Your task to perform on an android device: stop showing notifications on the lock screen Image 0: 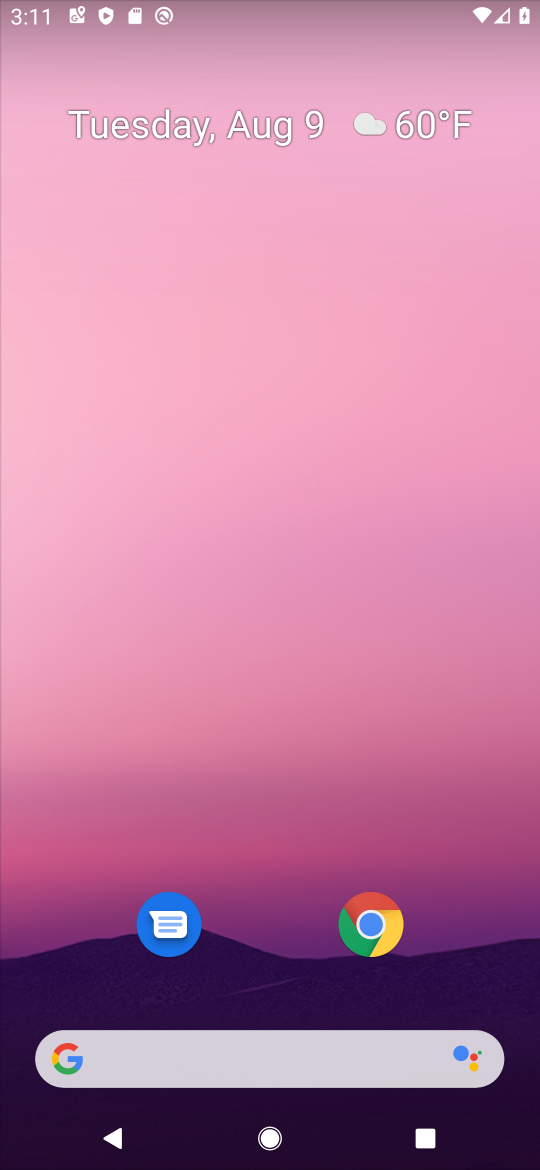
Step 0: drag from (261, 902) to (414, 0)
Your task to perform on an android device: stop showing notifications on the lock screen Image 1: 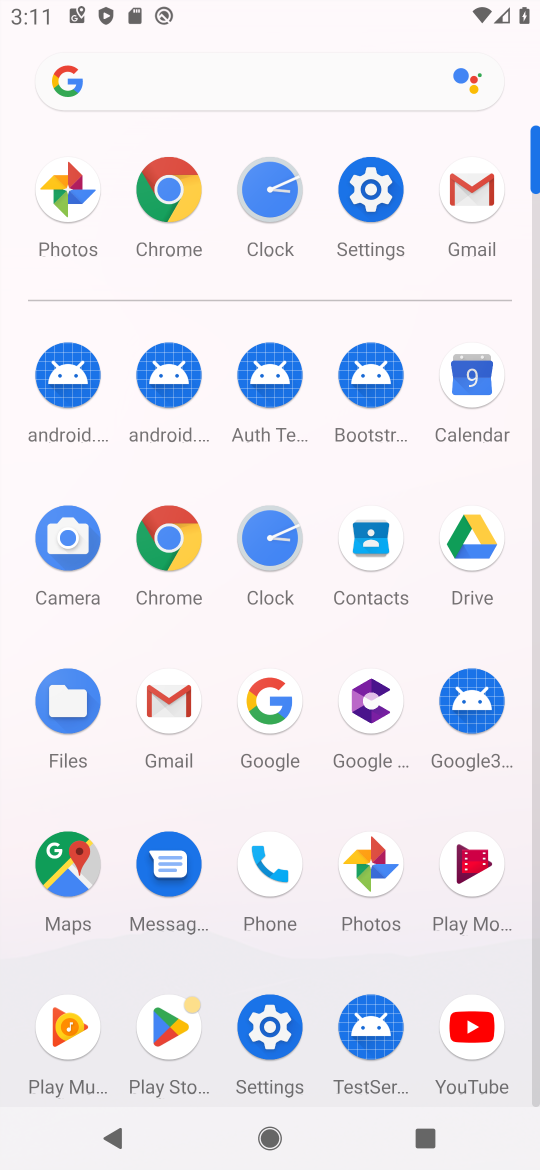
Step 1: click (378, 192)
Your task to perform on an android device: stop showing notifications on the lock screen Image 2: 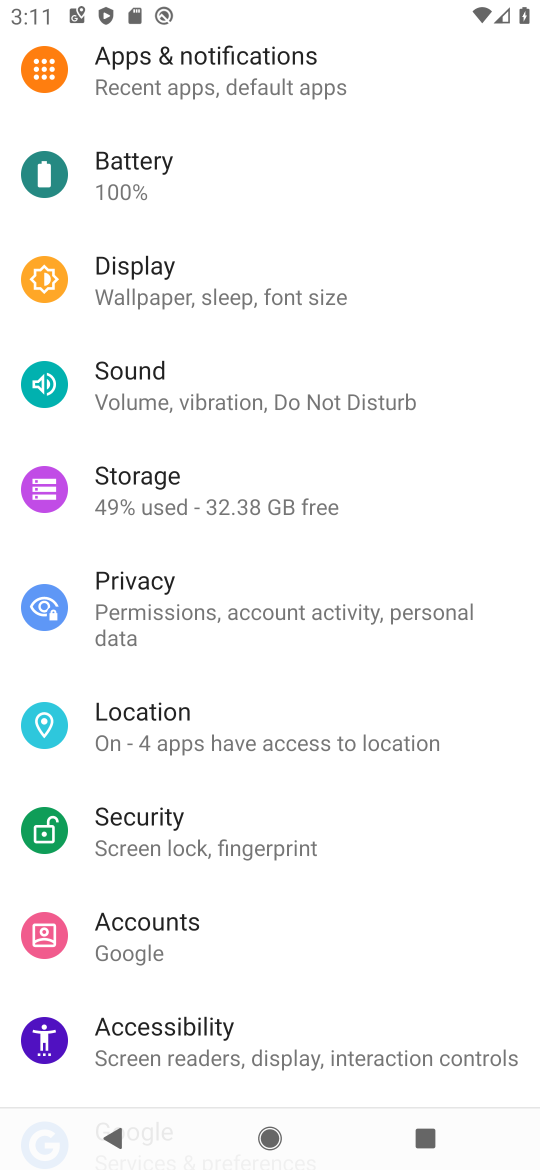
Step 2: click (311, 81)
Your task to perform on an android device: stop showing notifications on the lock screen Image 3: 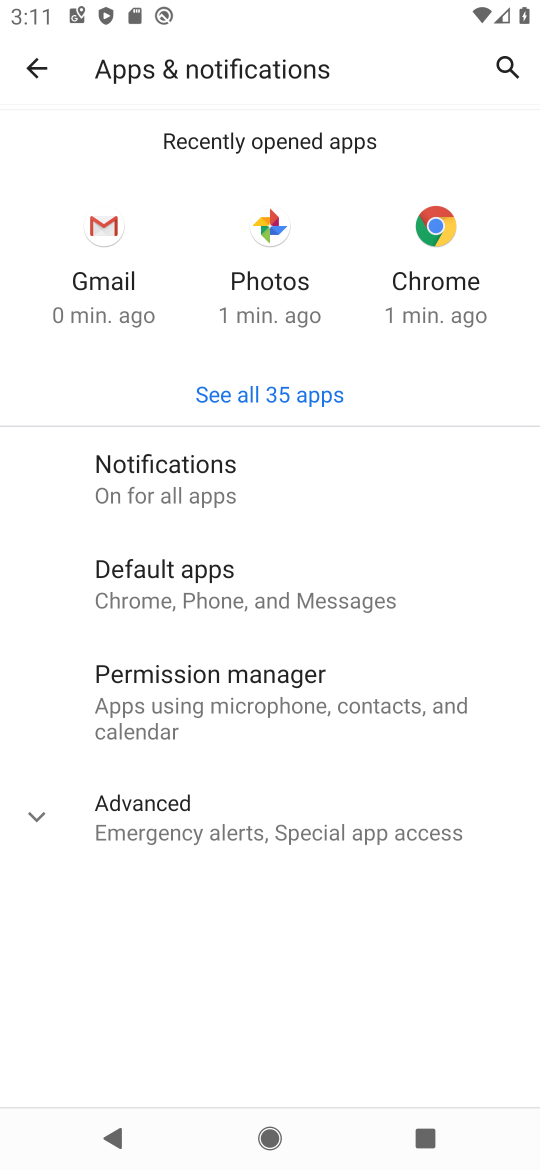
Step 3: click (210, 461)
Your task to perform on an android device: stop showing notifications on the lock screen Image 4: 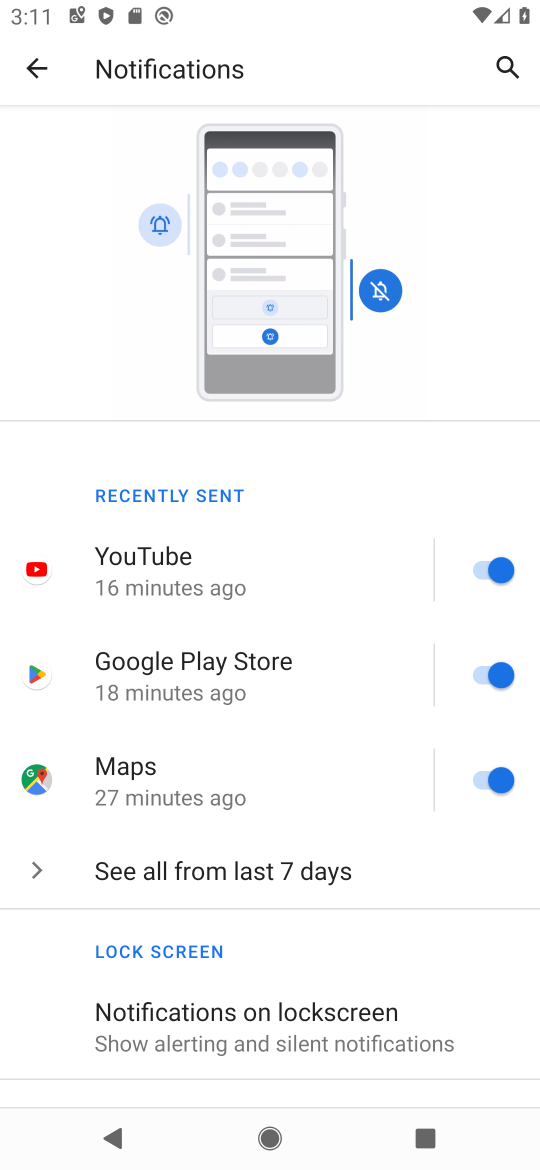
Step 4: click (291, 1022)
Your task to perform on an android device: stop showing notifications on the lock screen Image 5: 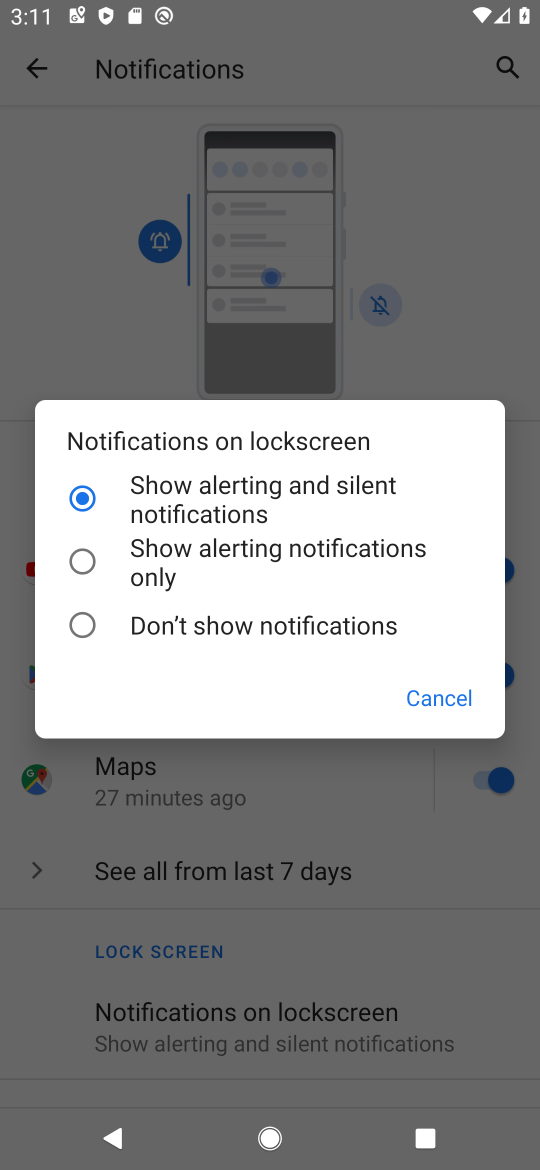
Step 5: click (83, 624)
Your task to perform on an android device: stop showing notifications on the lock screen Image 6: 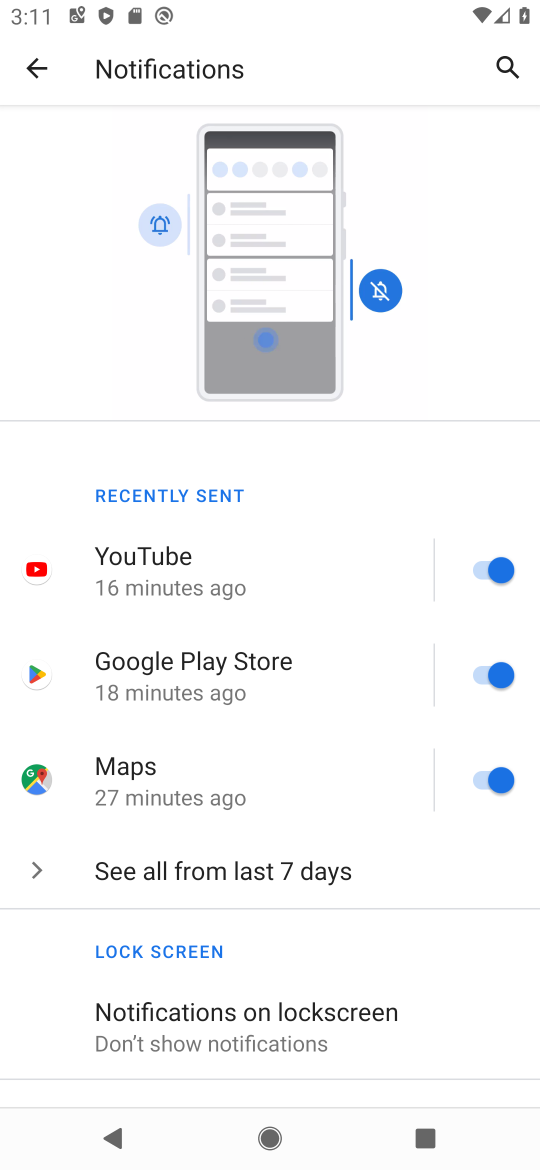
Step 6: task complete